Your task to perform on an android device: Play the last video I watched on Youtube Image 0: 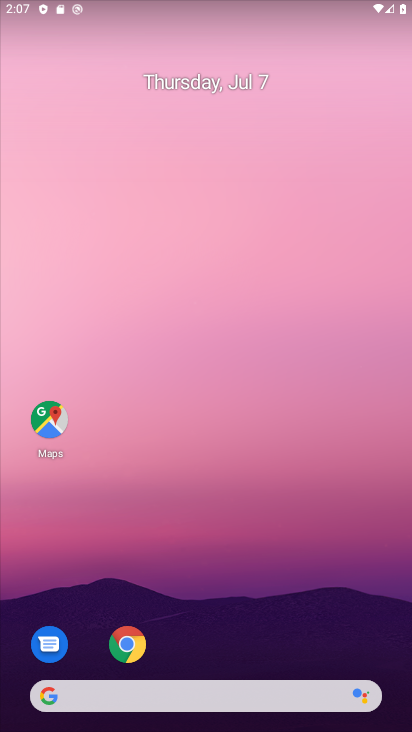
Step 0: press home button
Your task to perform on an android device: Play the last video I watched on Youtube Image 1: 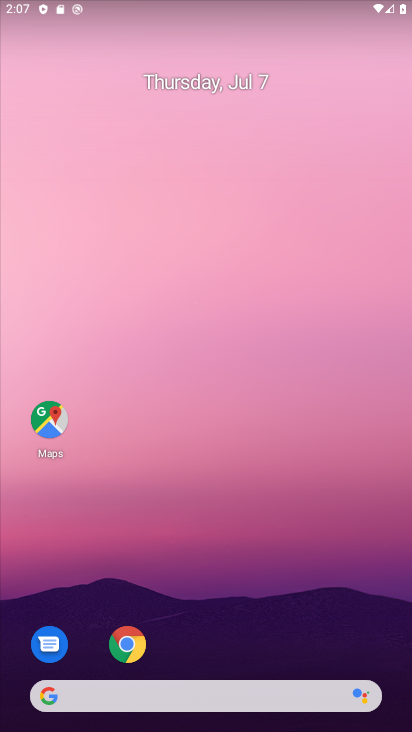
Step 1: click (123, 652)
Your task to perform on an android device: Play the last video I watched on Youtube Image 2: 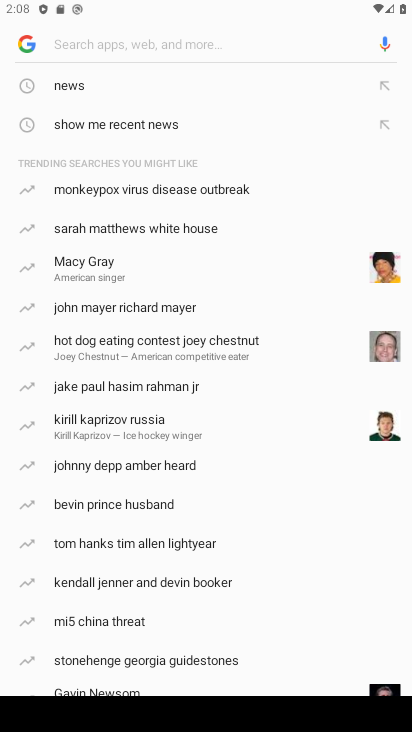
Step 2: press home button
Your task to perform on an android device: Play the last video I watched on Youtube Image 3: 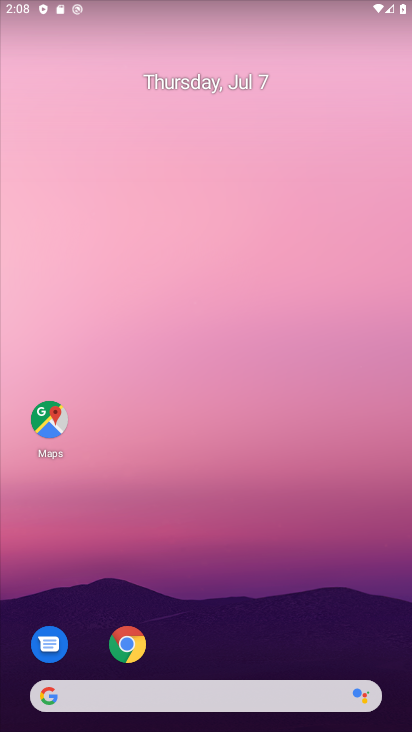
Step 3: drag from (234, 654) to (157, 192)
Your task to perform on an android device: Play the last video I watched on Youtube Image 4: 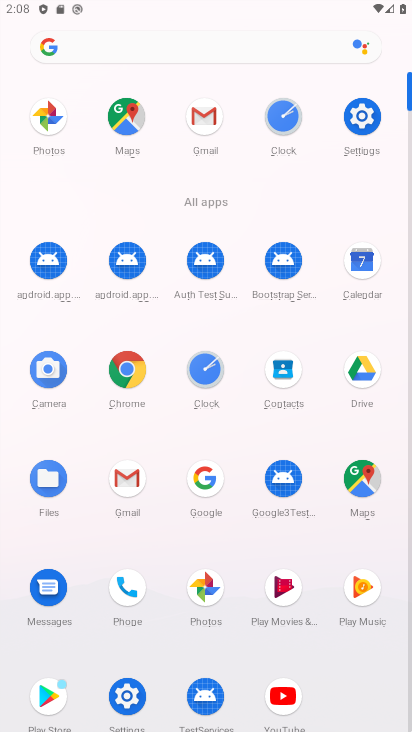
Step 4: click (277, 704)
Your task to perform on an android device: Play the last video I watched on Youtube Image 5: 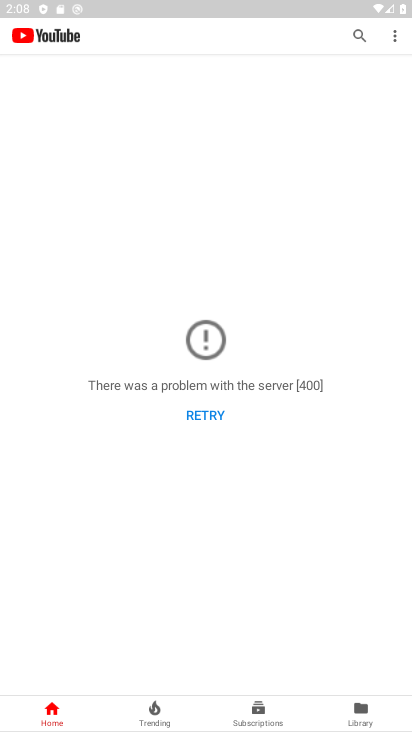
Step 5: click (204, 420)
Your task to perform on an android device: Play the last video I watched on Youtube Image 6: 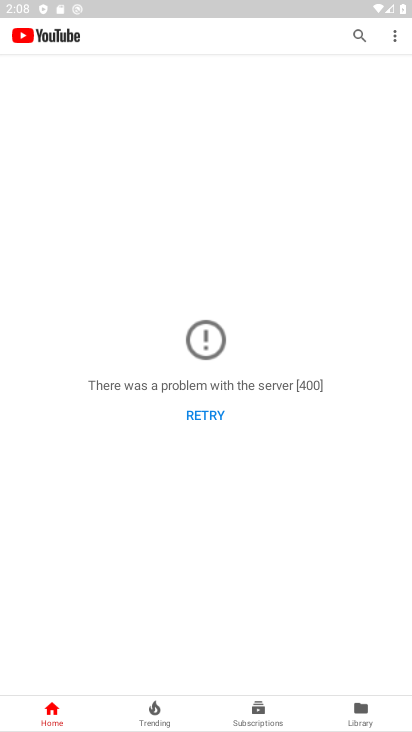
Step 6: click (204, 413)
Your task to perform on an android device: Play the last video I watched on Youtube Image 7: 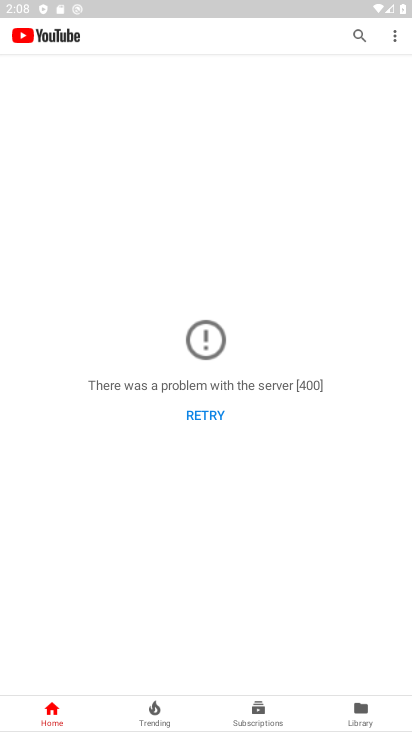
Step 7: click (204, 413)
Your task to perform on an android device: Play the last video I watched on Youtube Image 8: 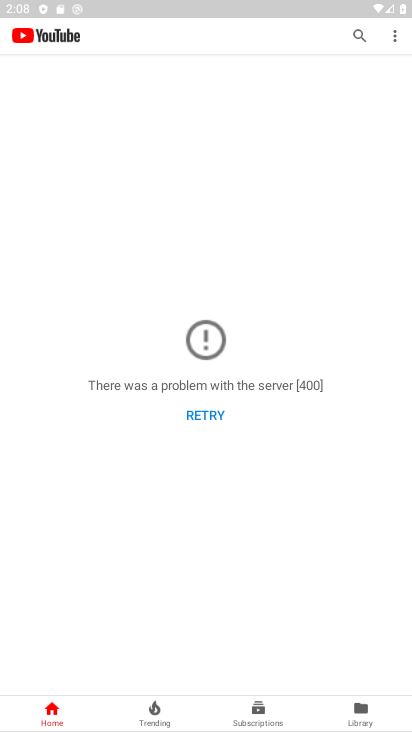
Step 8: click (204, 413)
Your task to perform on an android device: Play the last video I watched on Youtube Image 9: 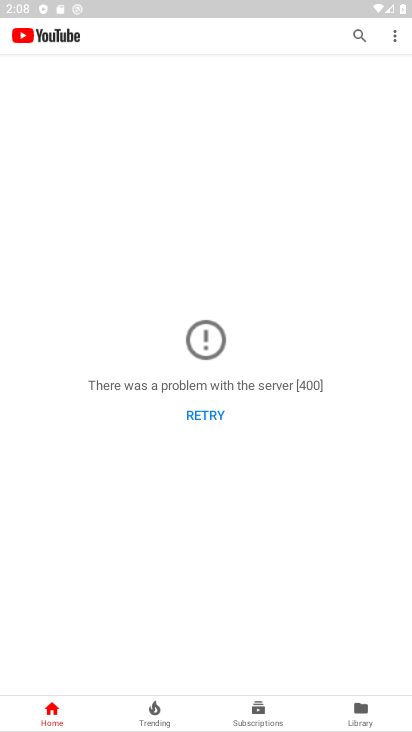
Step 9: task complete